Your task to perform on an android device: What's the weather going to be this weekend? Image 0: 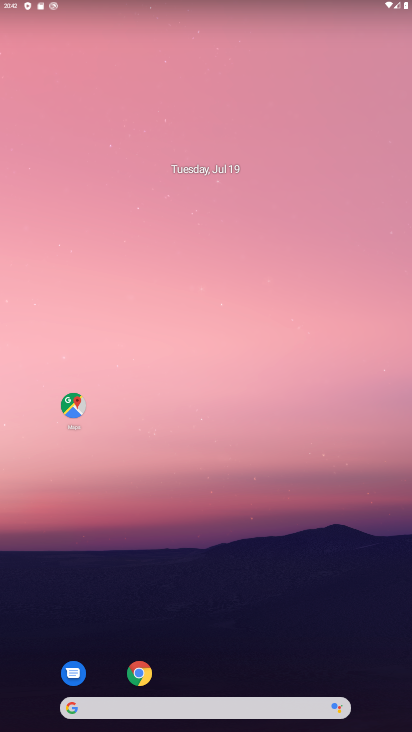
Step 0: drag from (201, 625) to (230, 5)
Your task to perform on an android device: What's the weather going to be this weekend? Image 1: 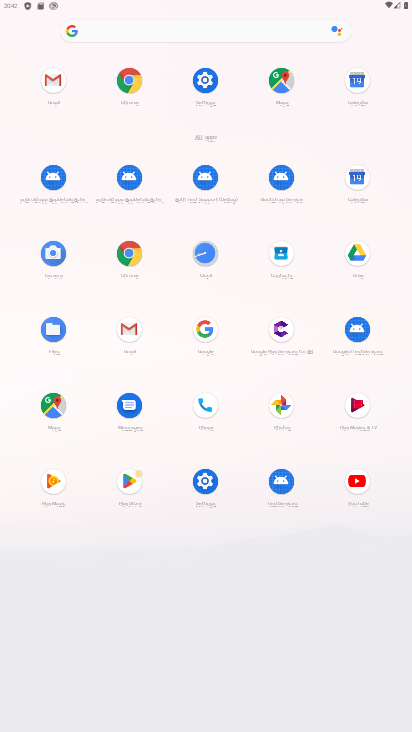
Step 1: click (157, 28)
Your task to perform on an android device: What's the weather going to be this weekend? Image 2: 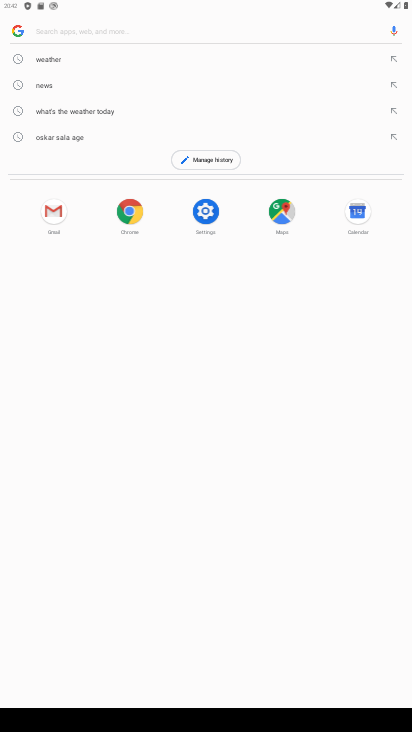
Step 2: click (55, 55)
Your task to perform on an android device: What's the weather going to be this weekend? Image 3: 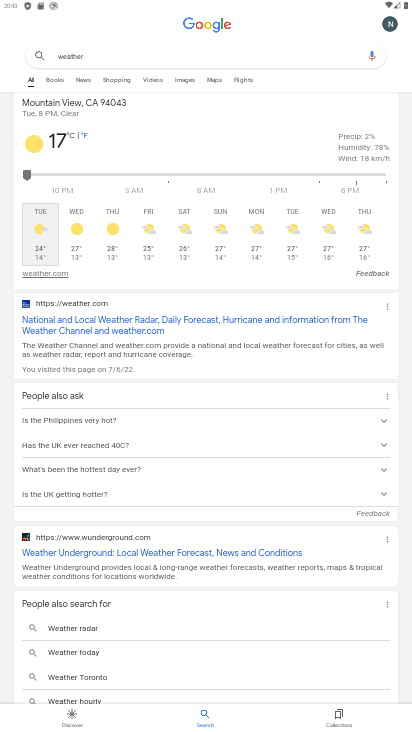
Step 3: task complete